Your task to perform on an android device: change keyboard looks Image 0: 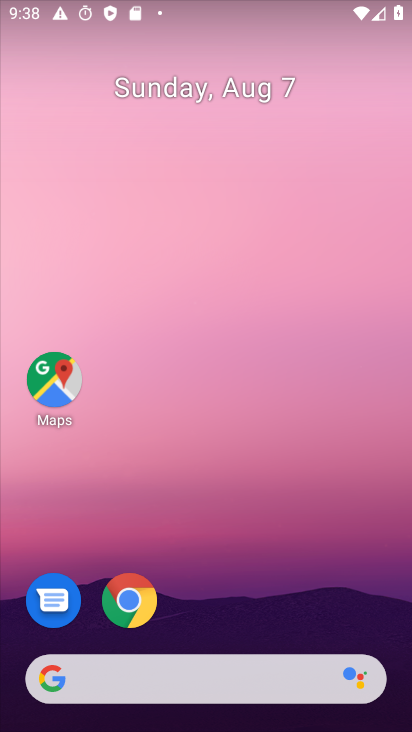
Step 0: drag from (208, 624) to (301, 116)
Your task to perform on an android device: change keyboard looks Image 1: 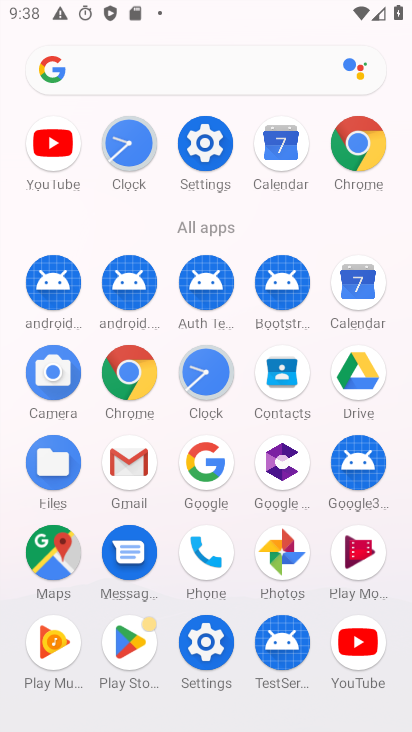
Step 1: click (218, 661)
Your task to perform on an android device: change keyboard looks Image 2: 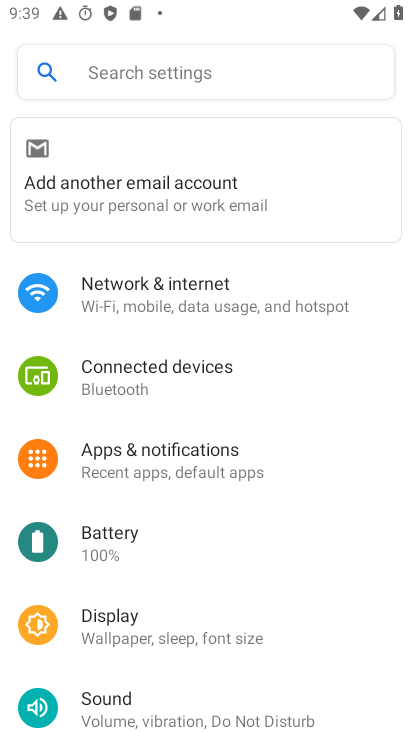
Step 2: drag from (194, 539) to (203, 267)
Your task to perform on an android device: change keyboard looks Image 3: 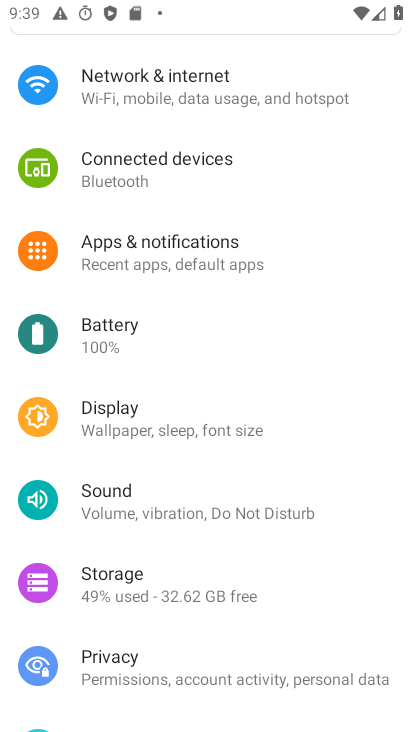
Step 3: drag from (196, 557) to (229, 146)
Your task to perform on an android device: change keyboard looks Image 4: 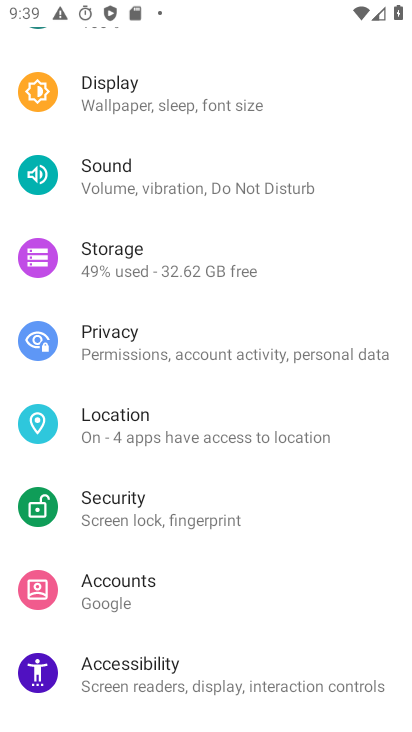
Step 4: drag from (211, 606) to (268, 156)
Your task to perform on an android device: change keyboard looks Image 5: 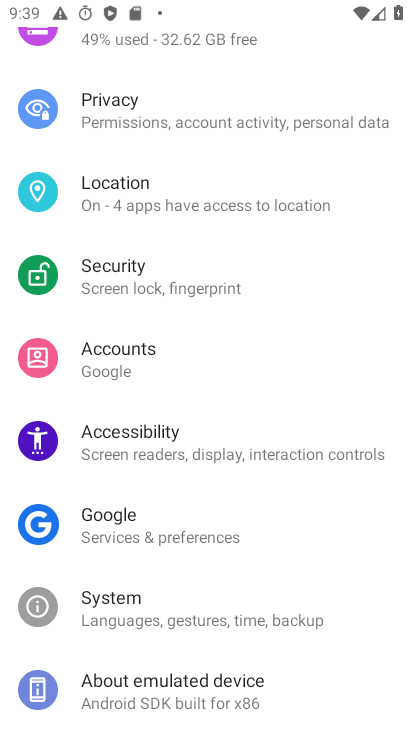
Step 5: click (165, 610)
Your task to perform on an android device: change keyboard looks Image 6: 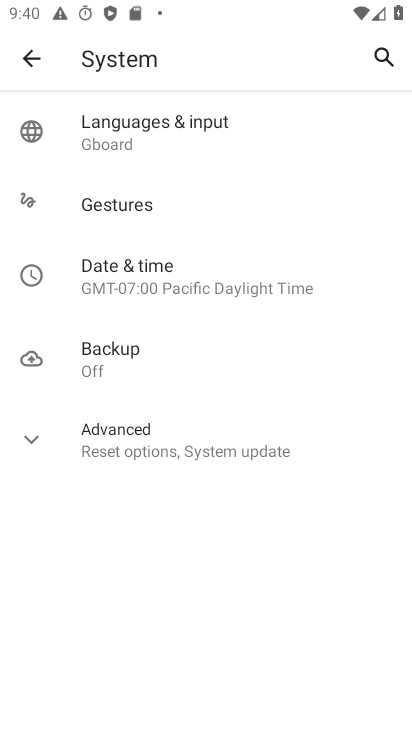
Step 6: click (137, 145)
Your task to perform on an android device: change keyboard looks Image 7: 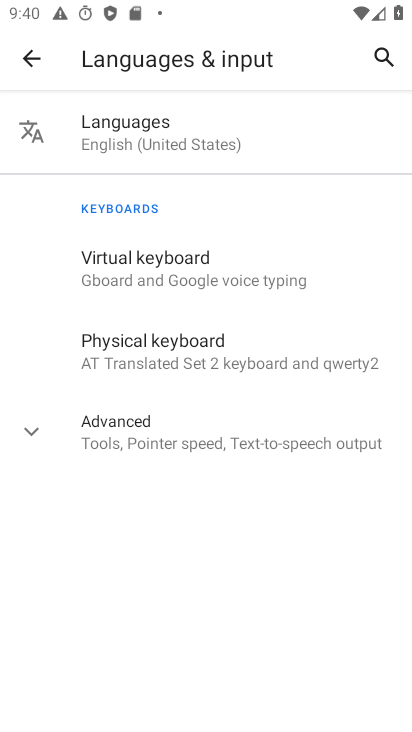
Step 7: click (192, 260)
Your task to perform on an android device: change keyboard looks Image 8: 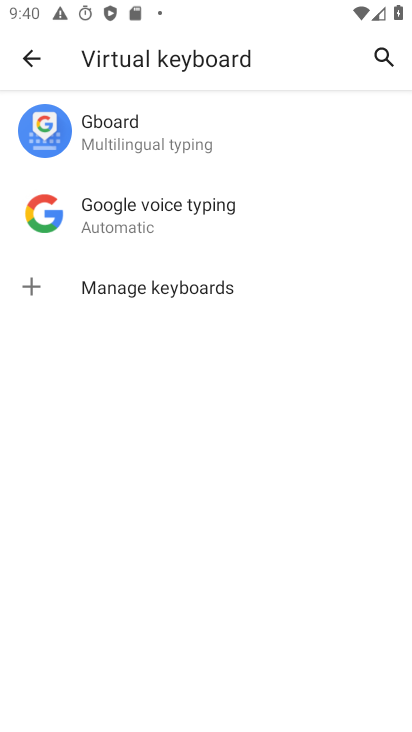
Step 8: click (176, 143)
Your task to perform on an android device: change keyboard looks Image 9: 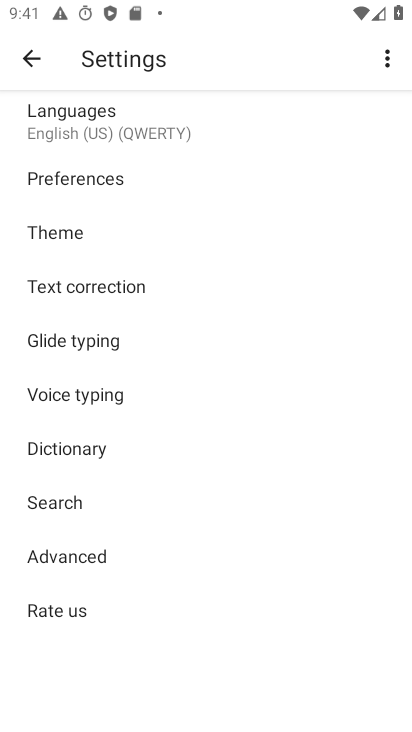
Step 9: click (81, 229)
Your task to perform on an android device: change keyboard looks Image 10: 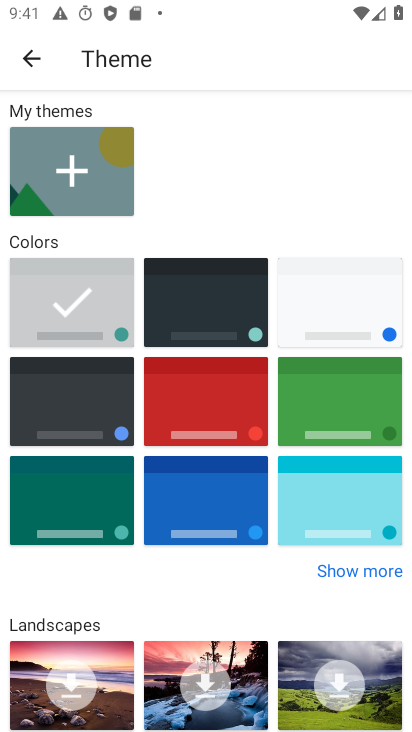
Step 10: click (327, 311)
Your task to perform on an android device: change keyboard looks Image 11: 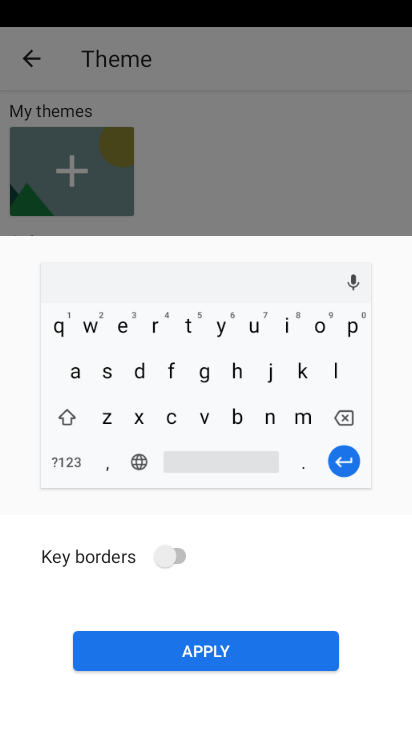
Step 11: click (214, 650)
Your task to perform on an android device: change keyboard looks Image 12: 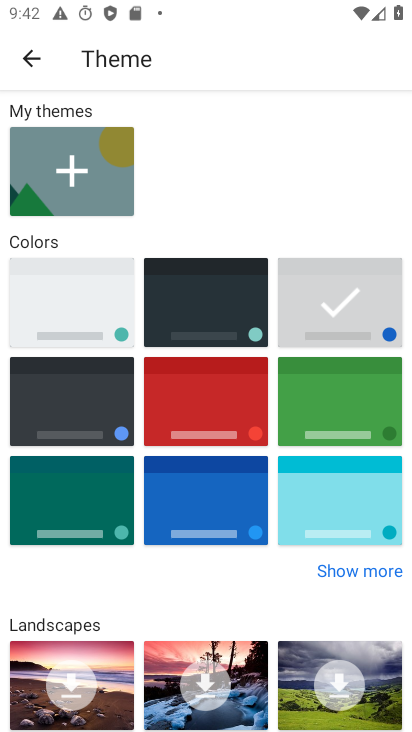
Step 12: task complete